Your task to perform on an android device: turn smart compose on in the gmail app Image 0: 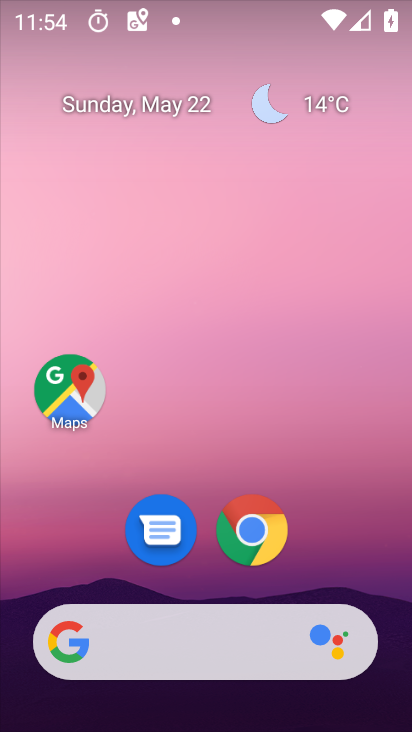
Step 0: drag from (403, 665) to (391, 118)
Your task to perform on an android device: turn smart compose on in the gmail app Image 1: 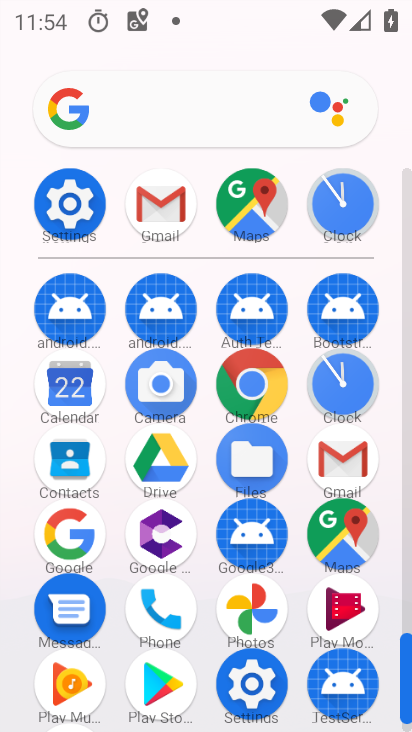
Step 1: click (334, 446)
Your task to perform on an android device: turn smart compose on in the gmail app Image 2: 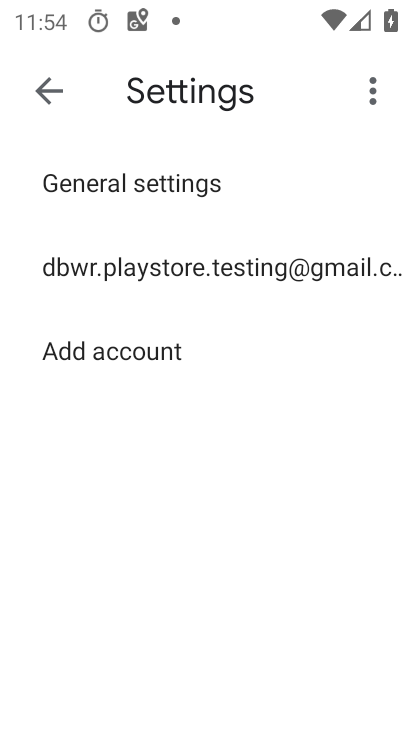
Step 2: click (94, 271)
Your task to perform on an android device: turn smart compose on in the gmail app Image 3: 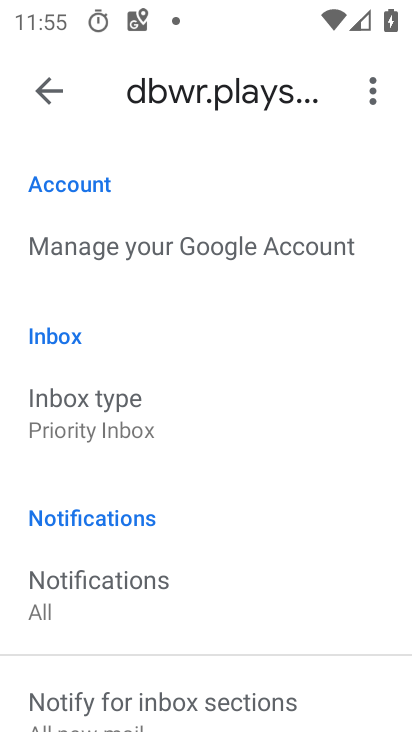
Step 3: task complete